Your task to perform on an android device: turn notification dots on Image 0: 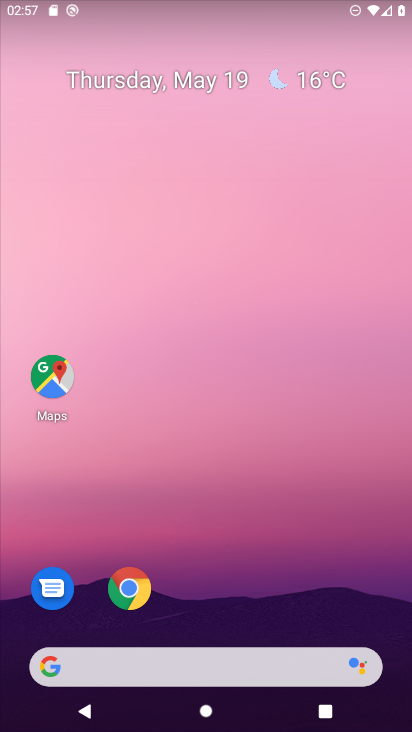
Step 0: drag from (299, 618) to (339, 5)
Your task to perform on an android device: turn notification dots on Image 1: 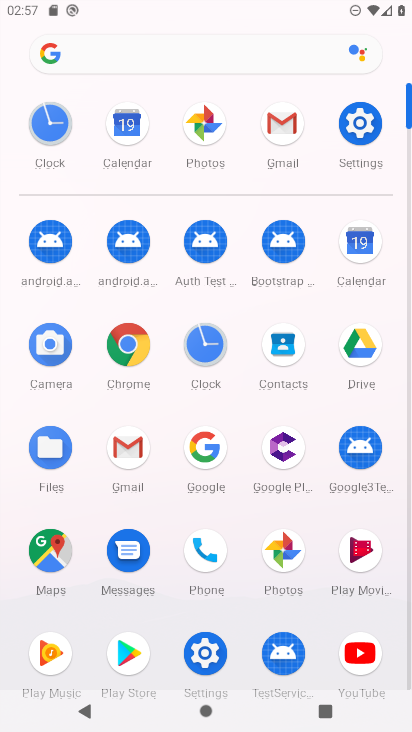
Step 1: click (357, 130)
Your task to perform on an android device: turn notification dots on Image 2: 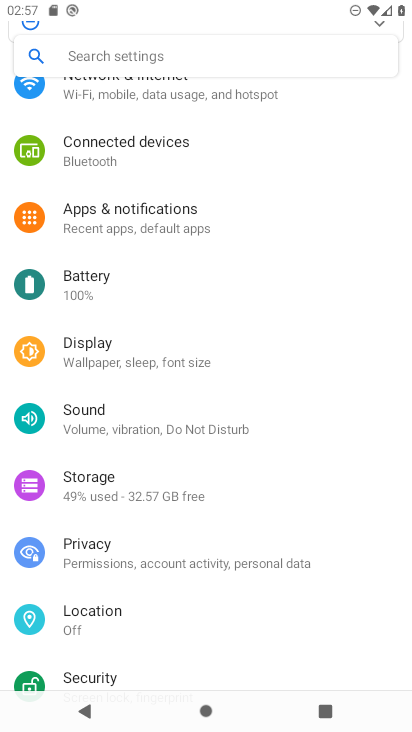
Step 2: click (120, 209)
Your task to perform on an android device: turn notification dots on Image 3: 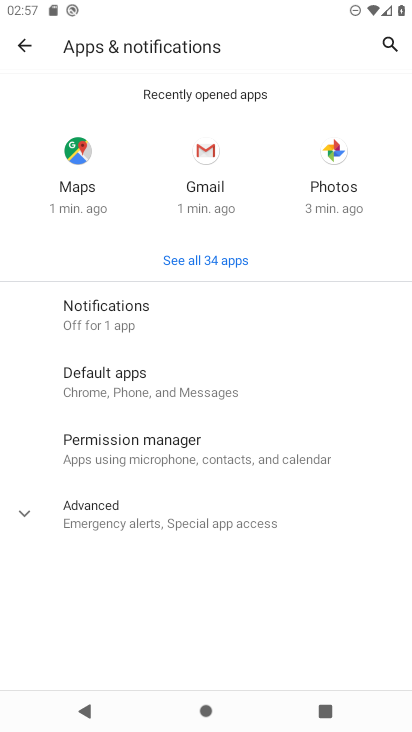
Step 3: click (120, 319)
Your task to perform on an android device: turn notification dots on Image 4: 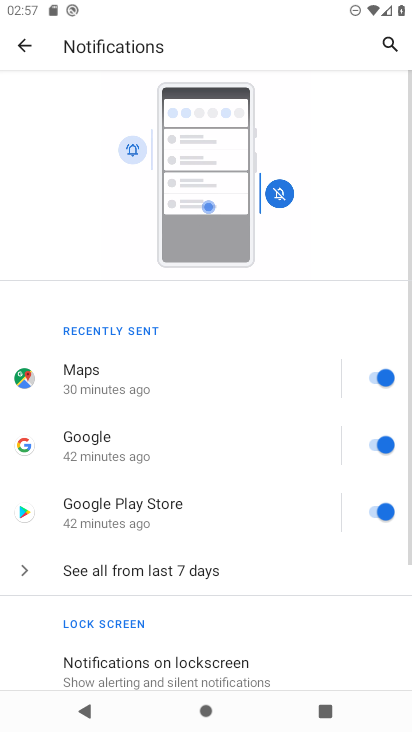
Step 4: drag from (164, 600) to (186, 280)
Your task to perform on an android device: turn notification dots on Image 5: 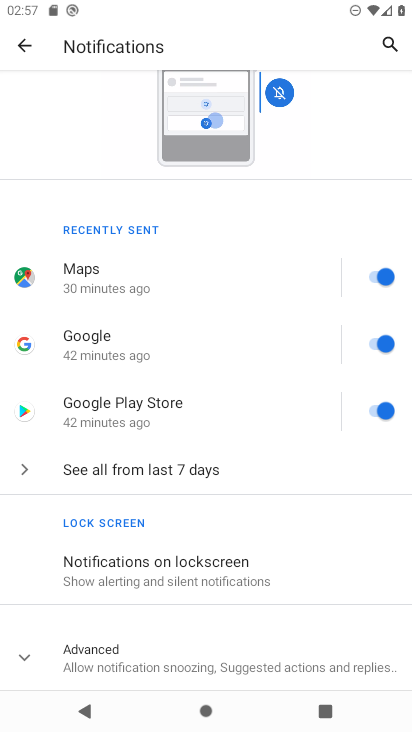
Step 5: drag from (158, 569) to (202, 141)
Your task to perform on an android device: turn notification dots on Image 6: 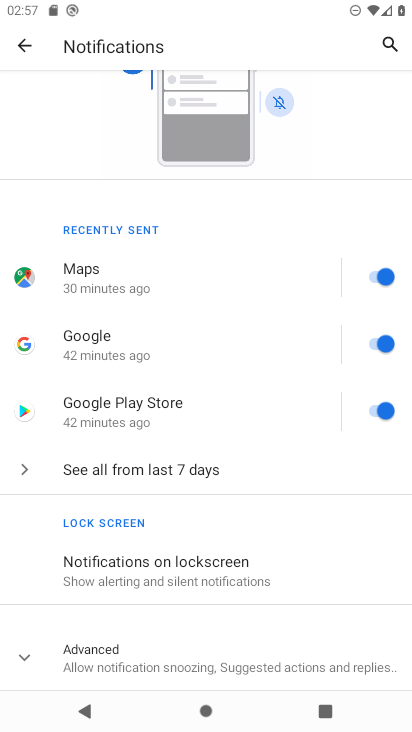
Step 6: click (28, 656)
Your task to perform on an android device: turn notification dots on Image 7: 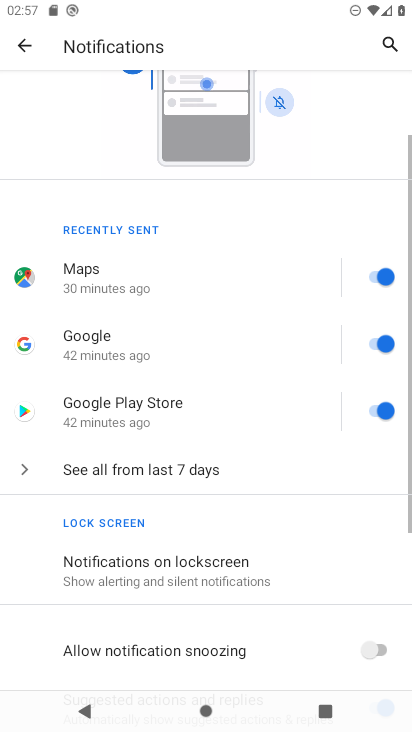
Step 7: drag from (162, 648) to (193, 102)
Your task to perform on an android device: turn notification dots on Image 8: 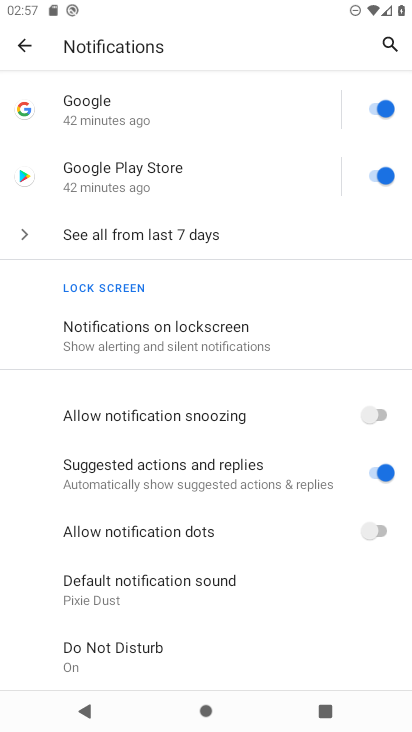
Step 8: click (373, 533)
Your task to perform on an android device: turn notification dots on Image 9: 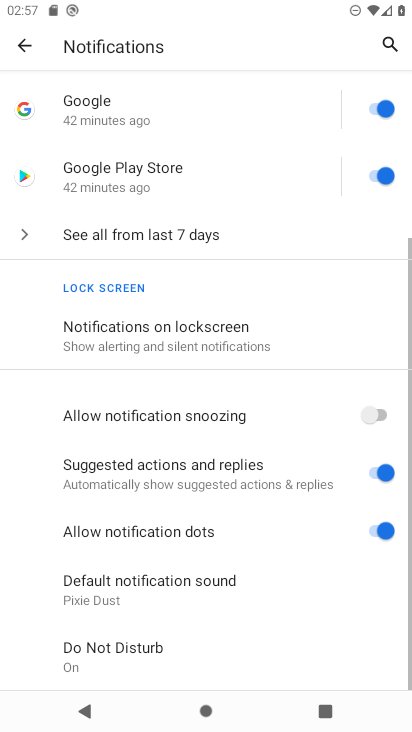
Step 9: task complete